Your task to perform on an android device: What is the news today? Image 0: 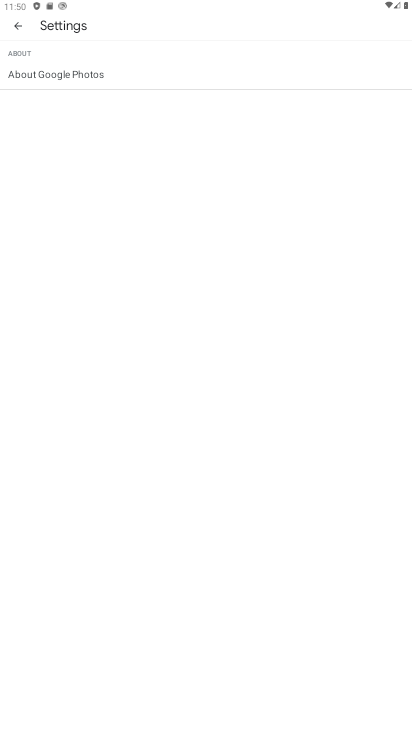
Step 0: press home button
Your task to perform on an android device: What is the news today? Image 1: 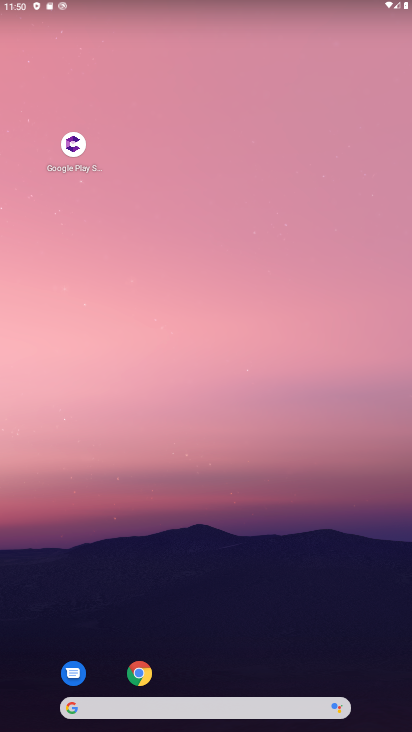
Step 1: click (128, 673)
Your task to perform on an android device: What is the news today? Image 2: 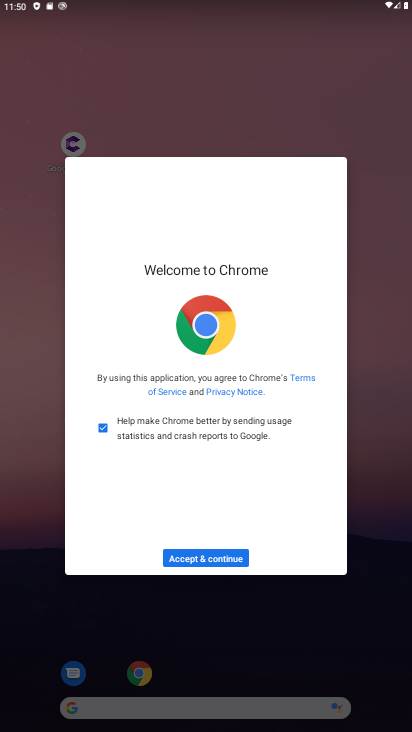
Step 2: click (211, 559)
Your task to perform on an android device: What is the news today? Image 3: 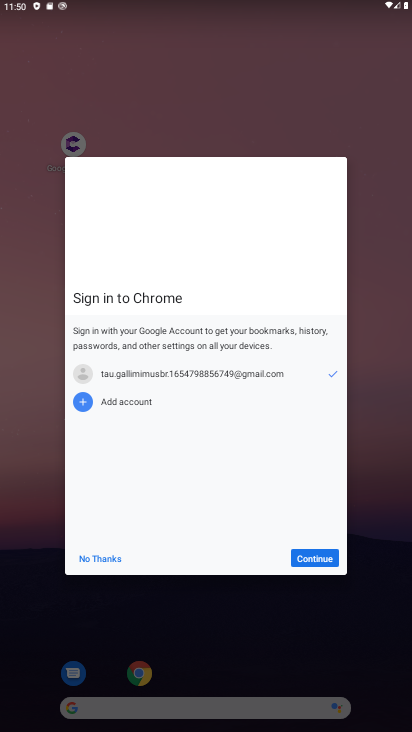
Step 3: click (302, 553)
Your task to perform on an android device: What is the news today? Image 4: 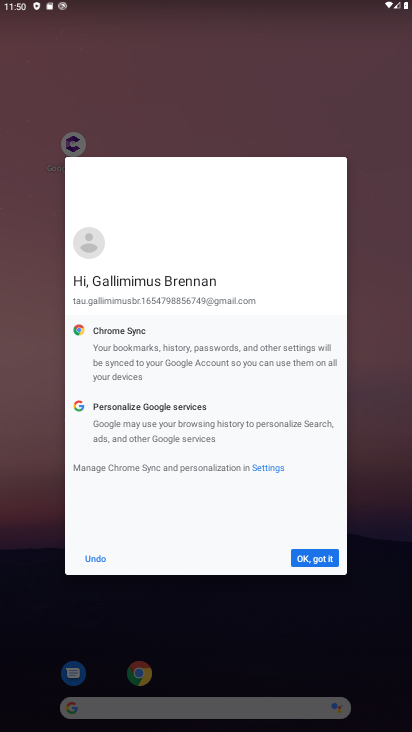
Step 4: click (331, 563)
Your task to perform on an android device: What is the news today? Image 5: 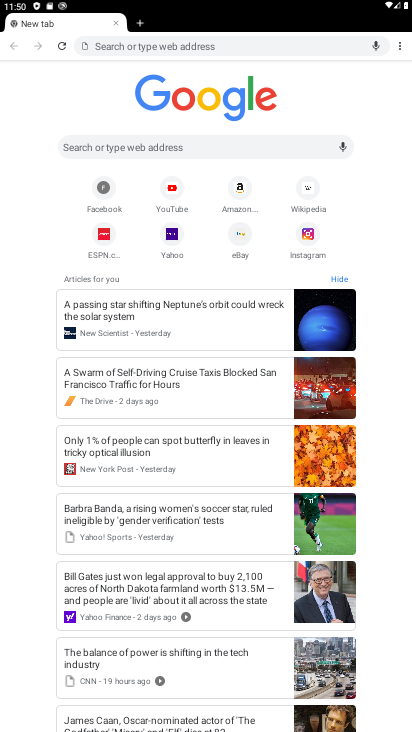
Step 5: task complete